Your task to perform on an android device: turn off notifications settings in the gmail app Image 0: 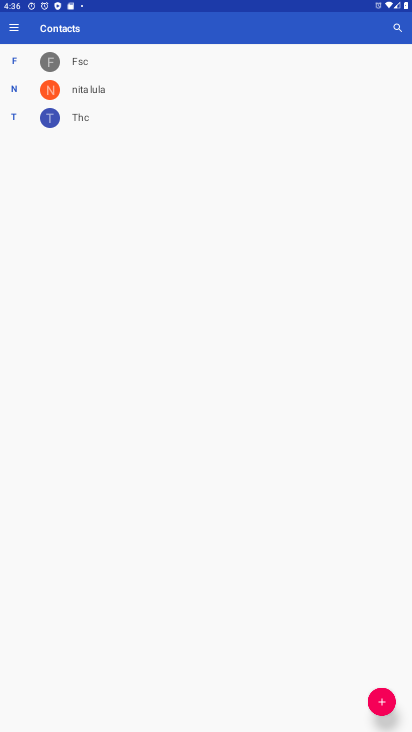
Step 0: press home button
Your task to perform on an android device: turn off notifications settings in the gmail app Image 1: 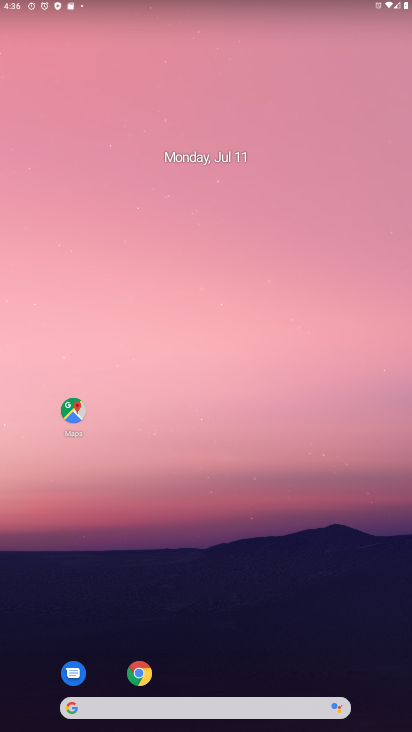
Step 1: drag from (250, 601) to (267, 133)
Your task to perform on an android device: turn off notifications settings in the gmail app Image 2: 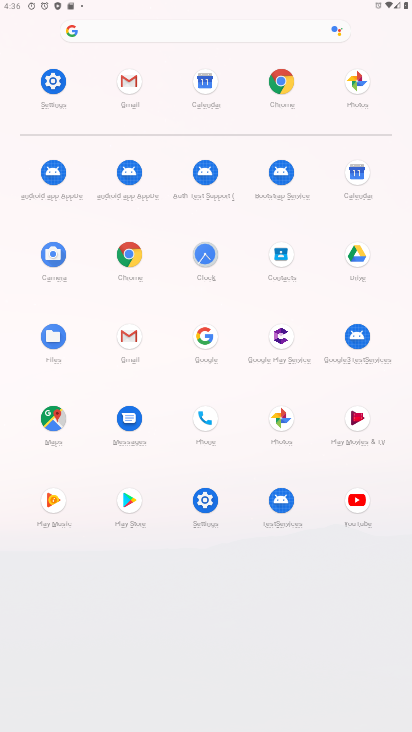
Step 2: click (134, 334)
Your task to perform on an android device: turn off notifications settings in the gmail app Image 3: 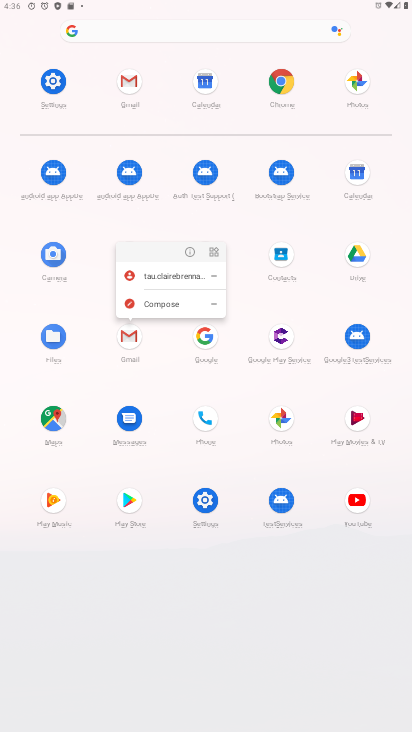
Step 3: click (195, 253)
Your task to perform on an android device: turn off notifications settings in the gmail app Image 4: 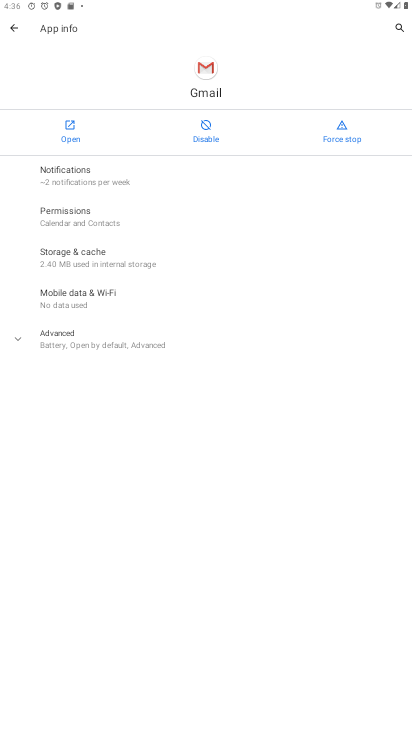
Step 4: click (95, 180)
Your task to perform on an android device: turn off notifications settings in the gmail app Image 5: 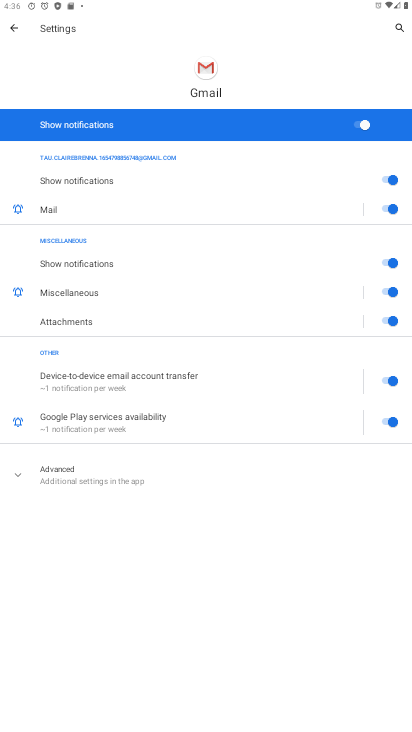
Step 5: click (364, 115)
Your task to perform on an android device: turn off notifications settings in the gmail app Image 6: 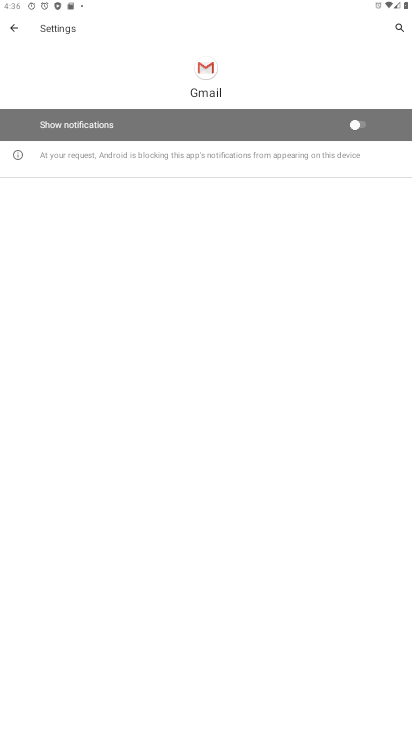
Step 6: task complete